Your task to perform on an android device: Go to Wikipedia Image 0: 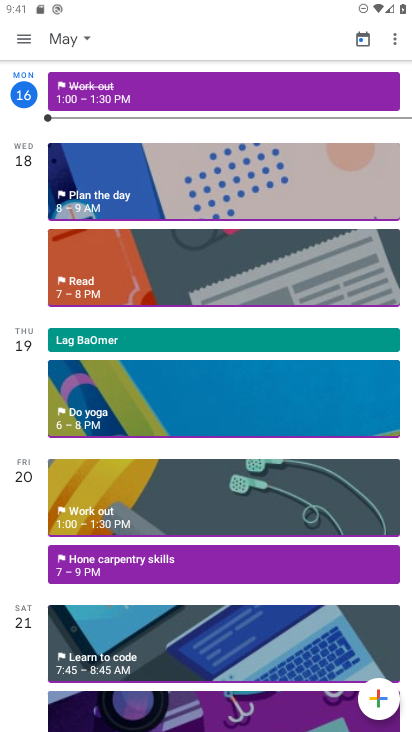
Step 0: press home button
Your task to perform on an android device: Go to Wikipedia Image 1: 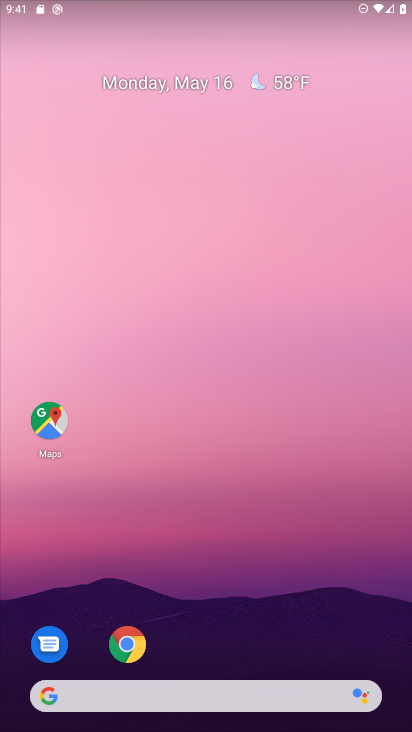
Step 1: click (124, 640)
Your task to perform on an android device: Go to Wikipedia Image 2: 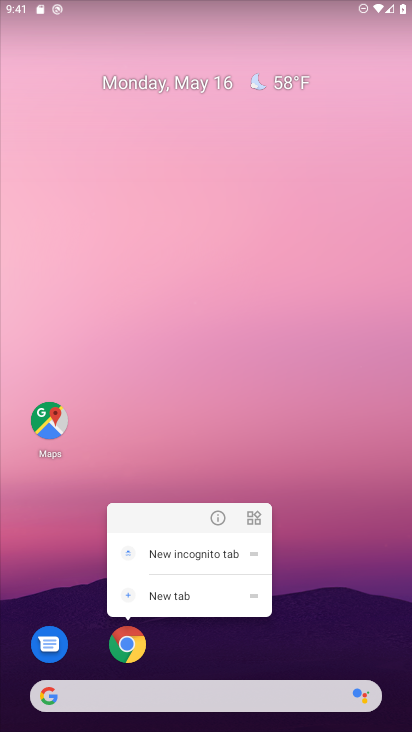
Step 2: click (124, 636)
Your task to perform on an android device: Go to Wikipedia Image 3: 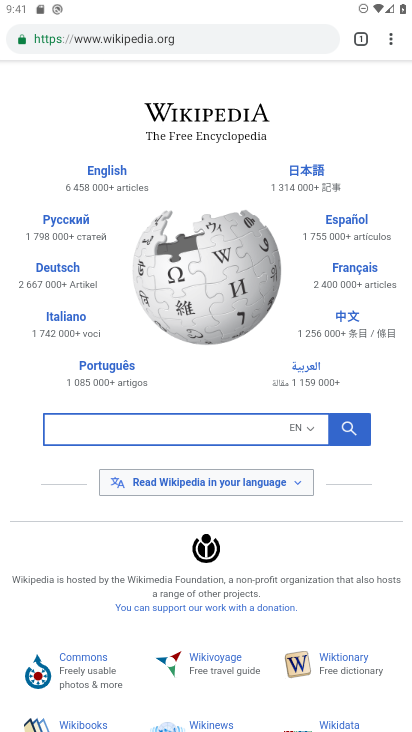
Step 3: task complete